Your task to perform on an android device: check google app version Image 0: 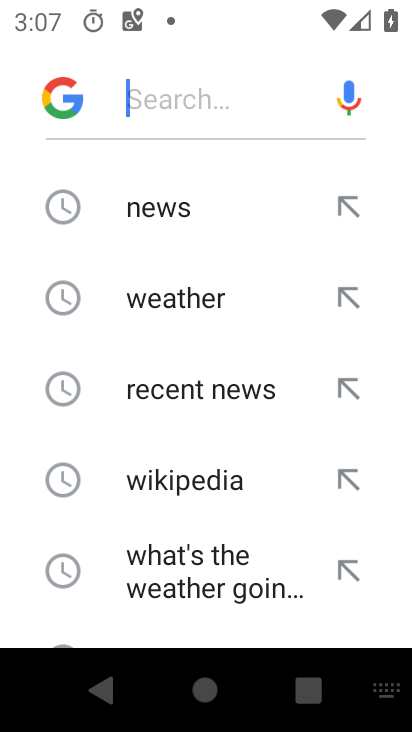
Step 0: press home button
Your task to perform on an android device: check google app version Image 1: 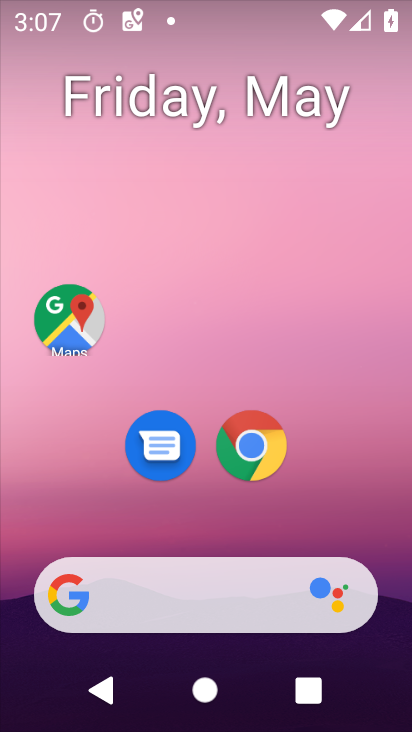
Step 1: drag from (216, 539) to (297, 1)
Your task to perform on an android device: check google app version Image 2: 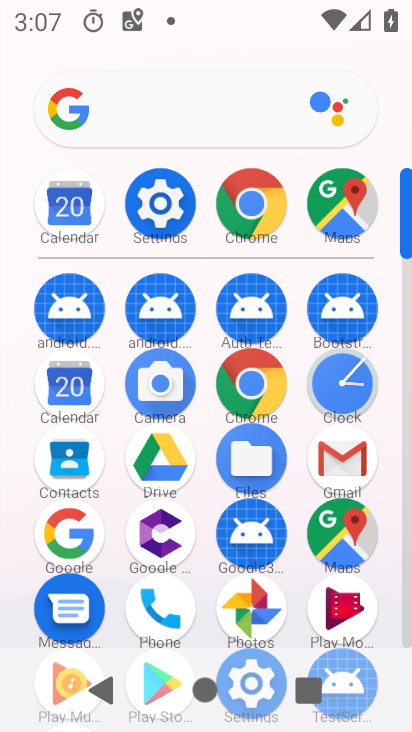
Step 2: drag from (228, 386) to (269, 73)
Your task to perform on an android device: check google app version Image 3: 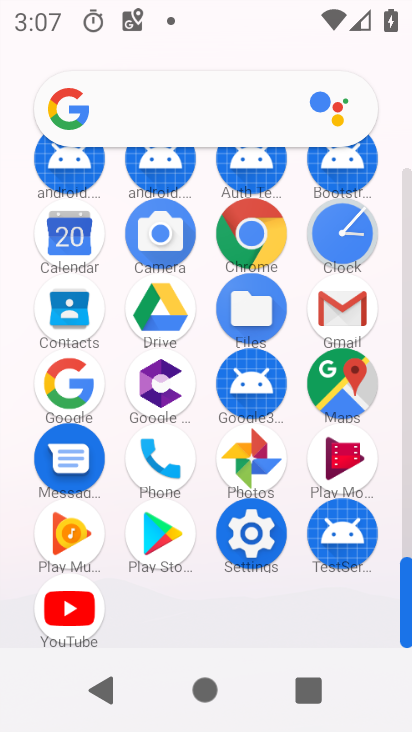
Step 3: click (71, 391)
Your task to perform on an android device: check google app version Image 4: 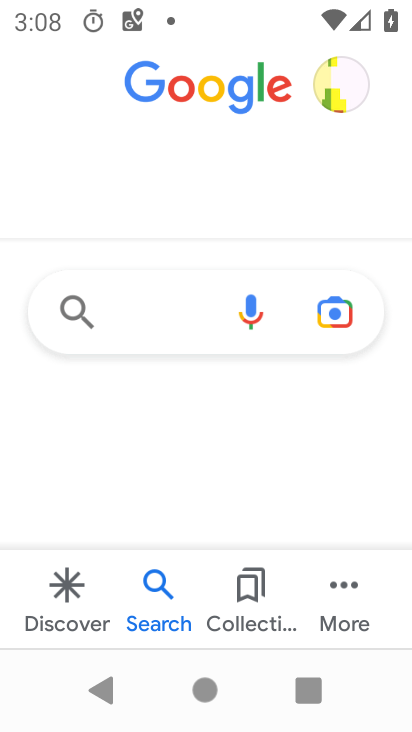
Step 4: click (361, 589)
Your task to perform on an android device: check google app version Image 5: 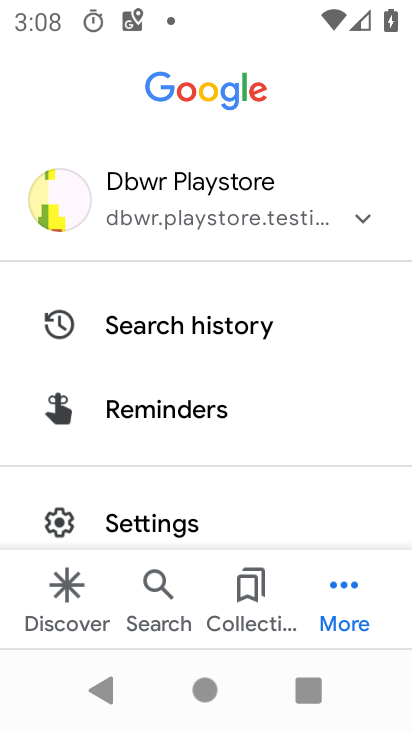
Step 5: click (159, 527)
Your task to perform on an android device: check google app version Image 6: 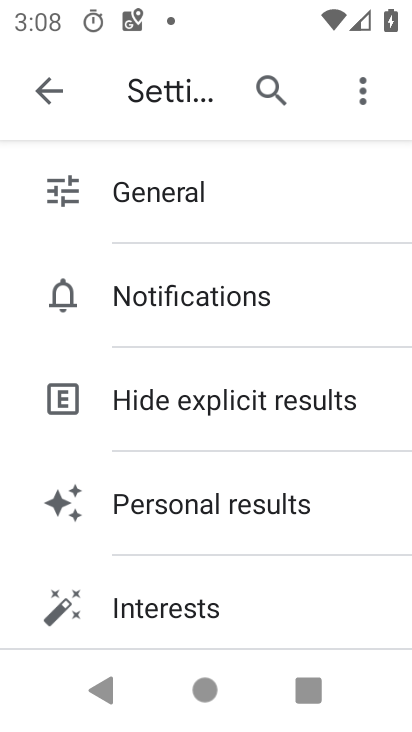
Step 6: drag from (177, 578) to (285, 156)
Your task to perform on an android device: check google app version Image 7: 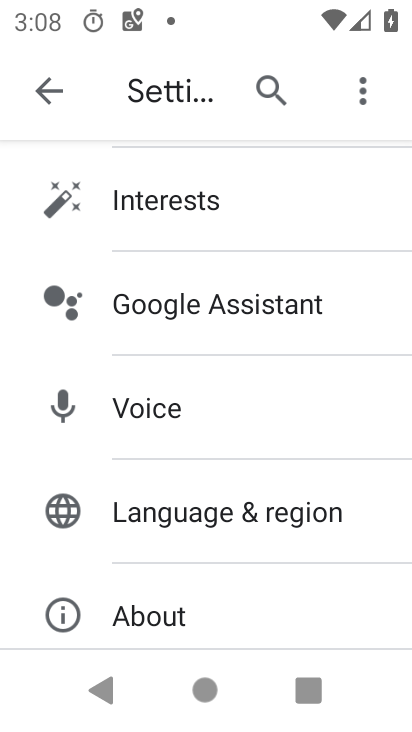
Step 7: drag from (191, 559) to (249, 269)
Your task to perform on an android device: check google app version Image 8: 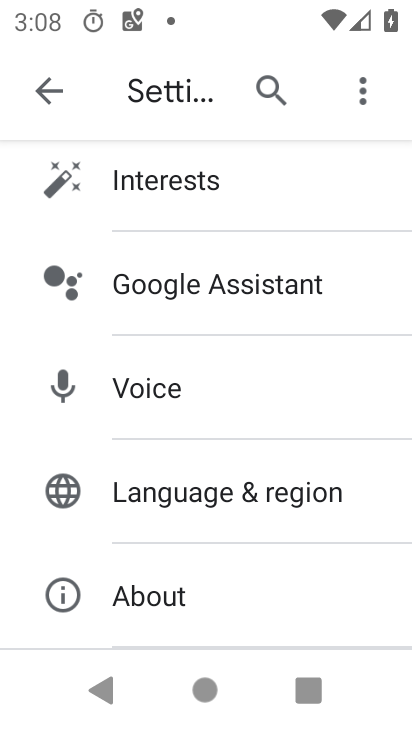
Step 8: click (231, 597)
Your task to perform on an android device: check google app version Image 9: 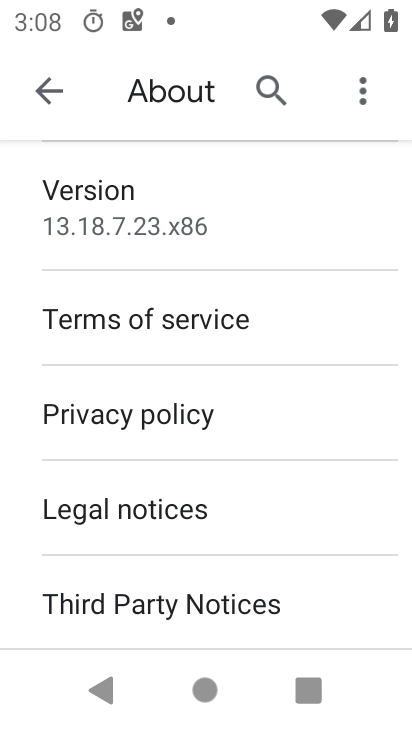
Step 9: task complete